Your task to perform on an android device: open wifi settings Image 0: 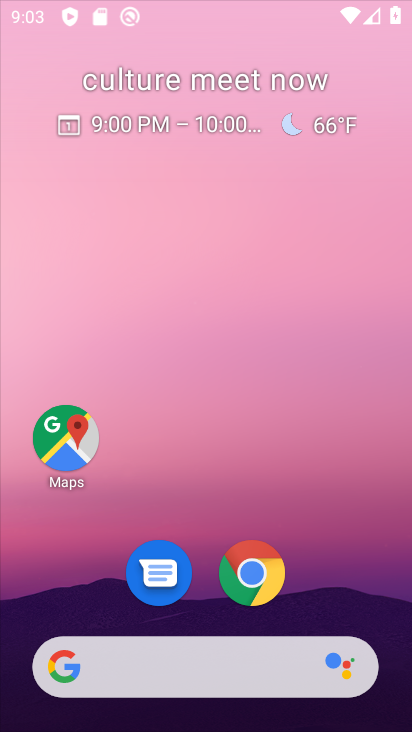
Step 0: drag from (190, 610) to (327, 104)
Your task to perform on an android device: open wifi settings Image 1: 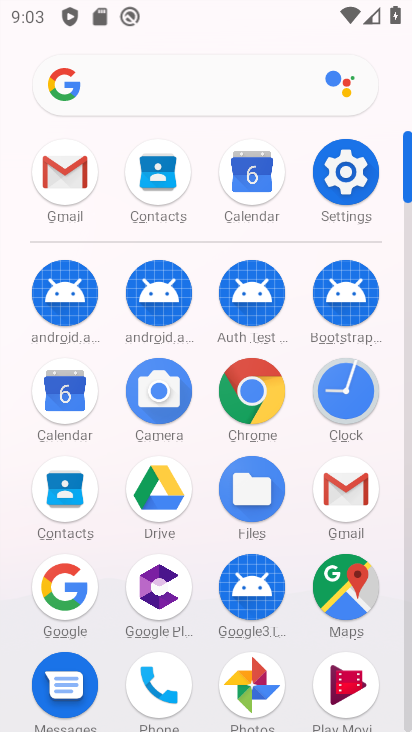
Step 1: drag from (77, 19) to (77, 500)
Your task to perform on an android device: open wifi settings Image 2: 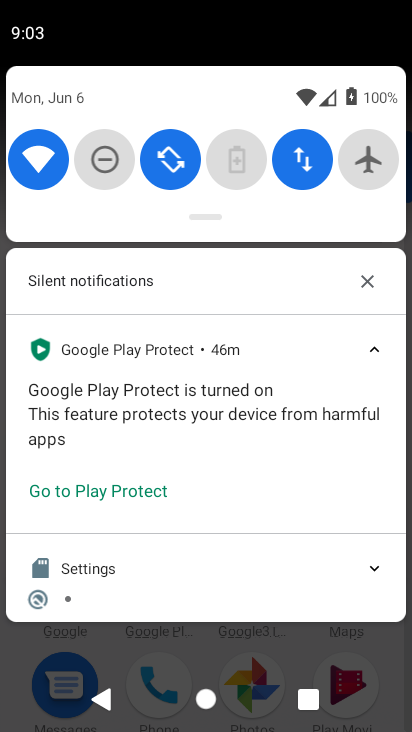
Step 2: click (38, 148)
Your task to perform on an android device: open wifi settings Image 3: 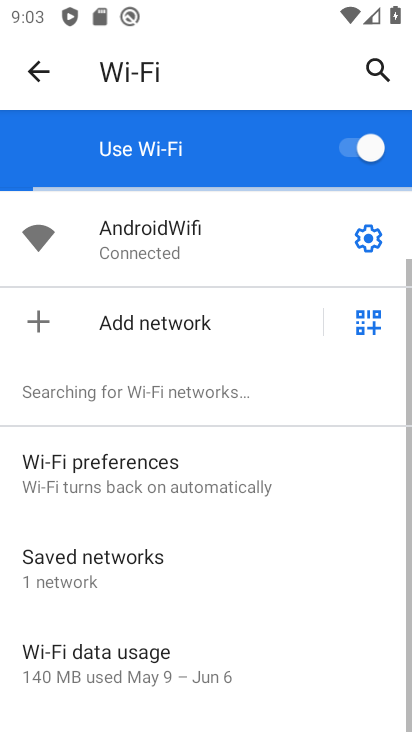
Step 3: task complete